Your task to perform on an android device: Open the Play Movies app and select the watchlist tab. Image 0: 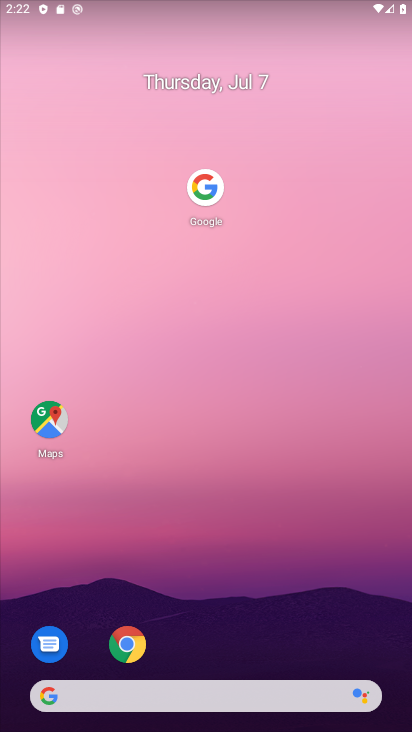
Step 0: drag from (149, 695) to (229, 108)
Your task to perform on an android device: Open the Play Movies app and select the watchlist tab. Image 1: 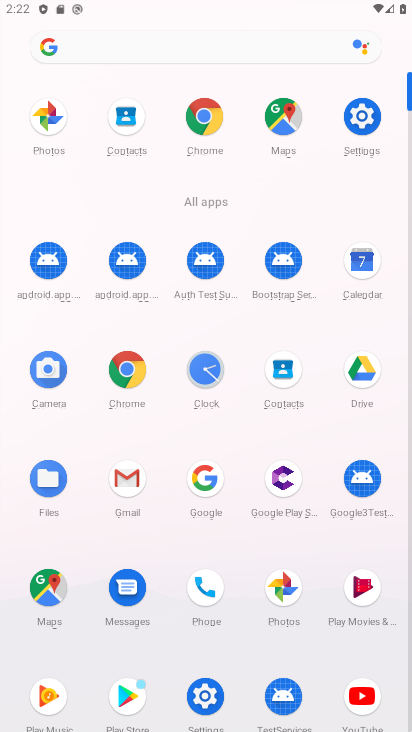
Step 1: click (356, 588)
Your task to perform on an android device: Open the Play Movies app and select the watchlist tab. Image 2: 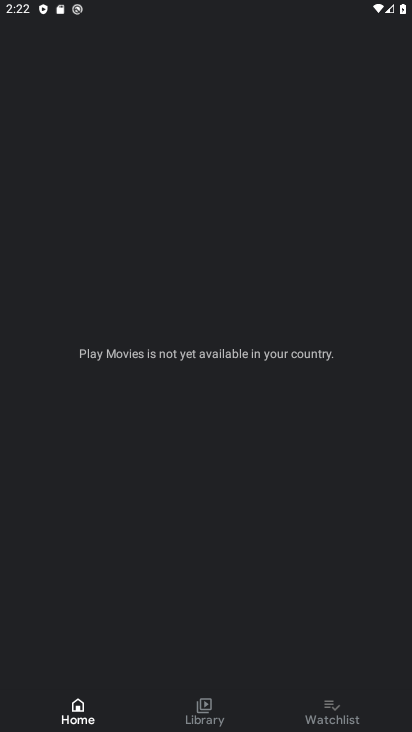
Step 2: click (332, 711)
Your task to perform on an android device: Open the Play Movies app and select the watchlist tab. Image 3: 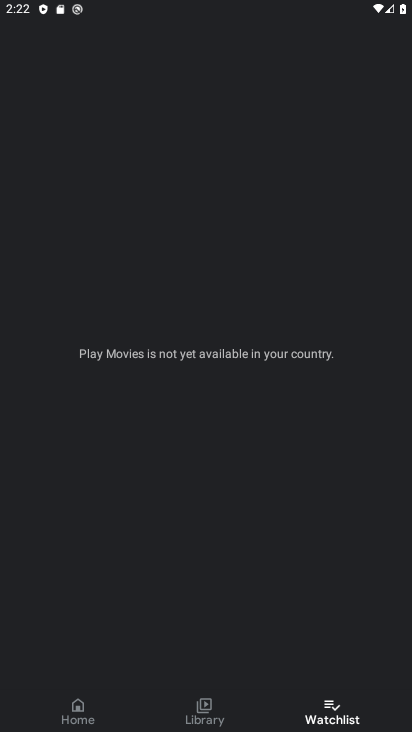
Step 3: task complete